Your task to perform on an android device: Go to Yahoo.com Image 0: 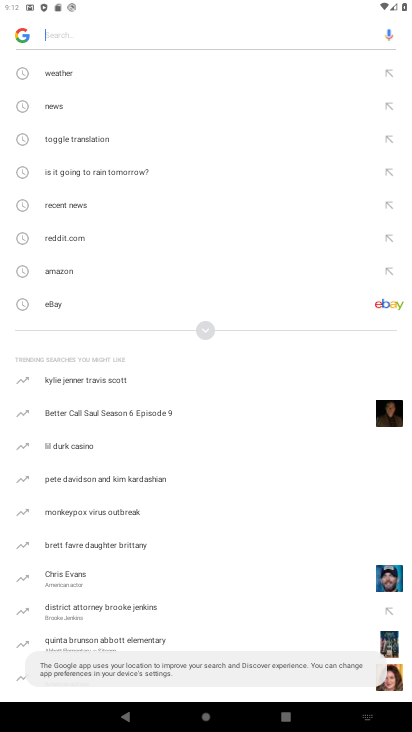
Step 0: press home button
Your task to perform on an android device: Go to Yahoo.com Image 1: 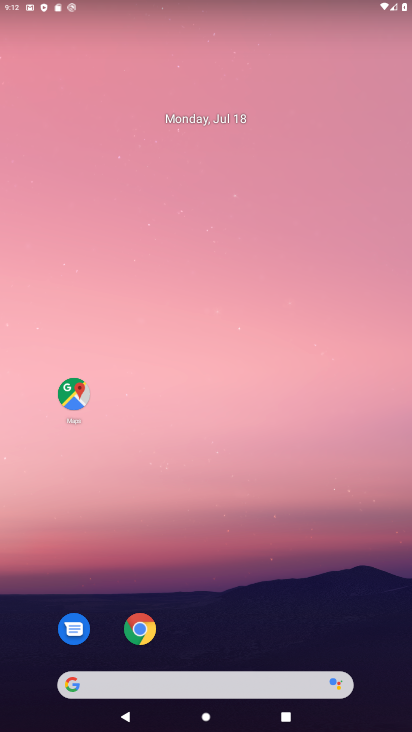
Step 1: drag from (300, 621) to (378, 94)
Your task to perform on an android device: Go to Yahoo.com Image 2: 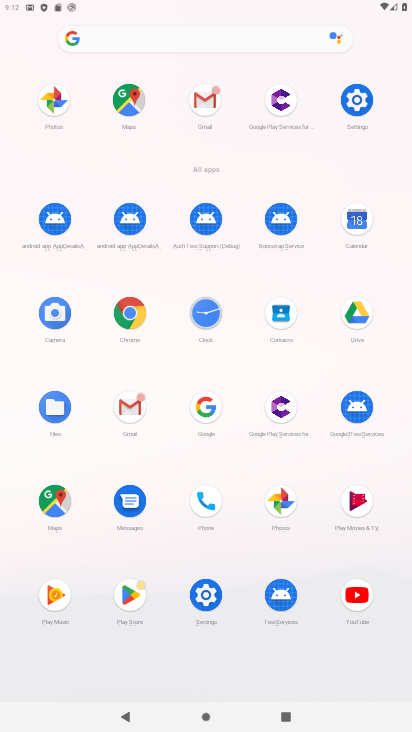
Step 2: click (133, 312)
Your task to perform on an android device: Go to Yahoo.com Image 3: 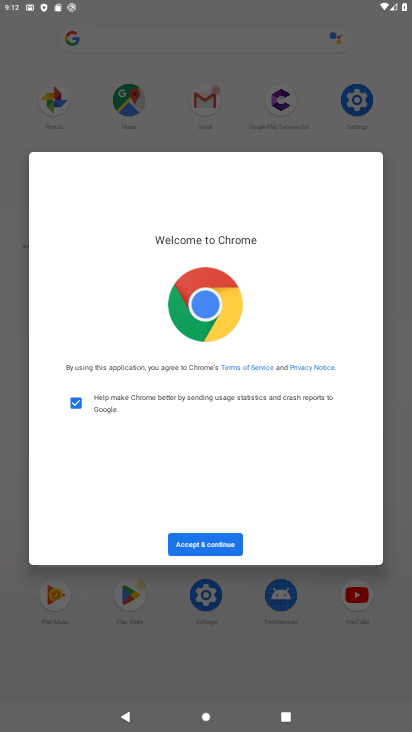
Step 3: click (172, 544)
Your task to perform on an android device: Go to Yahoo.com Image 4: 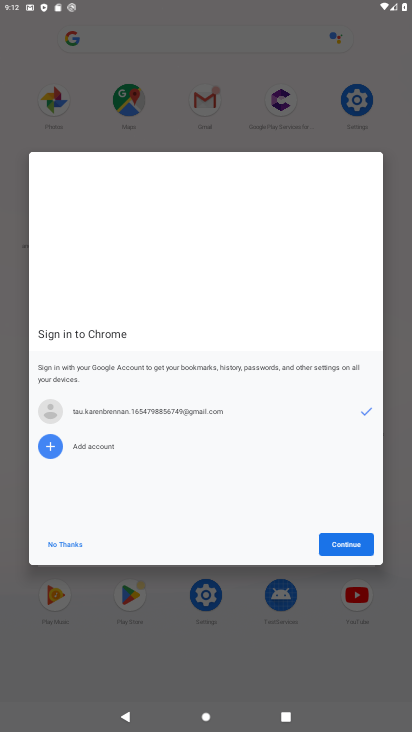
Step 4: click (349, 545)
Your task to perform on an android device: Go to Yahoo.com Image 5: 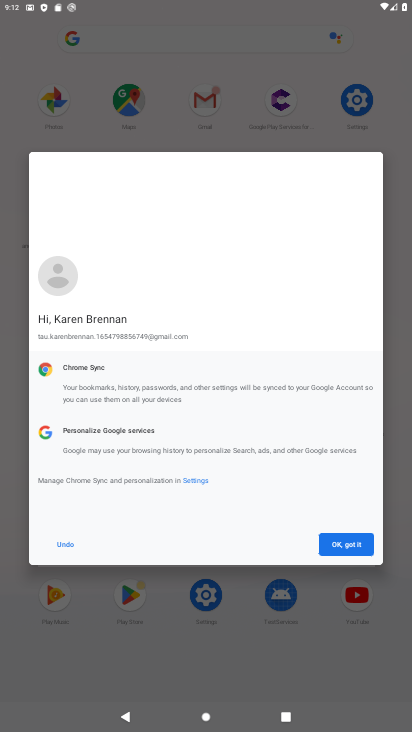
Step 5: click (360, 538)
Your task to perform on an android device: Go to Yahoo.com Image 6: 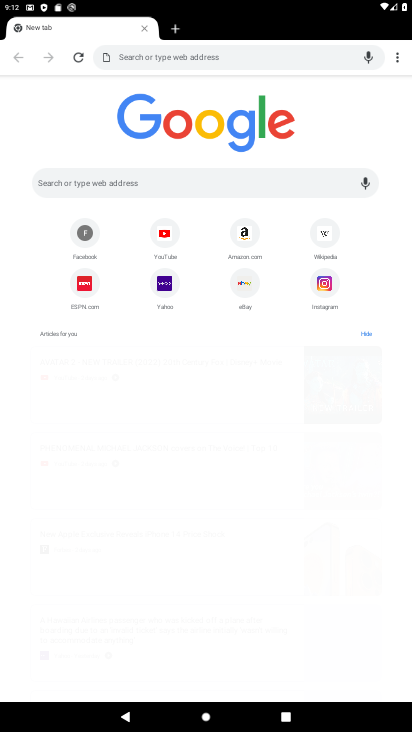
Step 6: click (163, 290)
Your task to perform on an android device: Go to Yahoo.com Image 7: 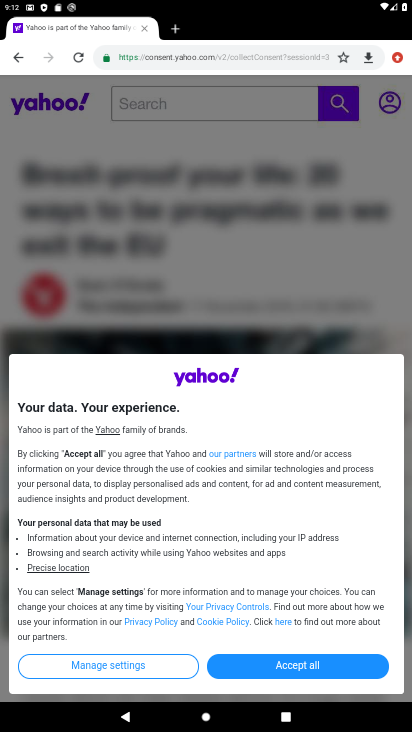
Step 7: click (298, 664)
Your task to perform on an android device: Go to Yahoo.com Image 8: 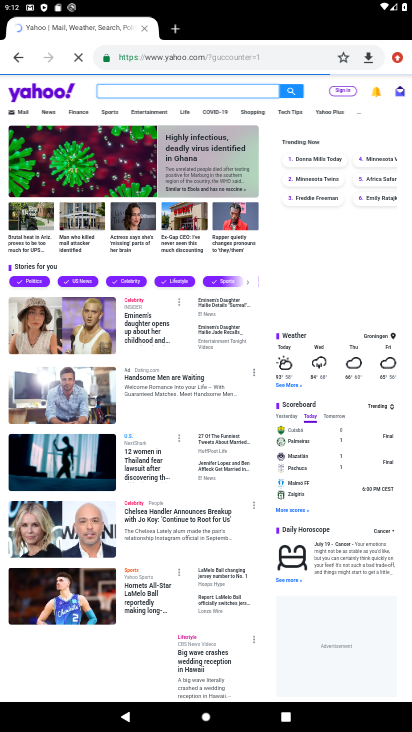
Step 8: task complete